Your task to perform on an android device: add a contact Image 0: 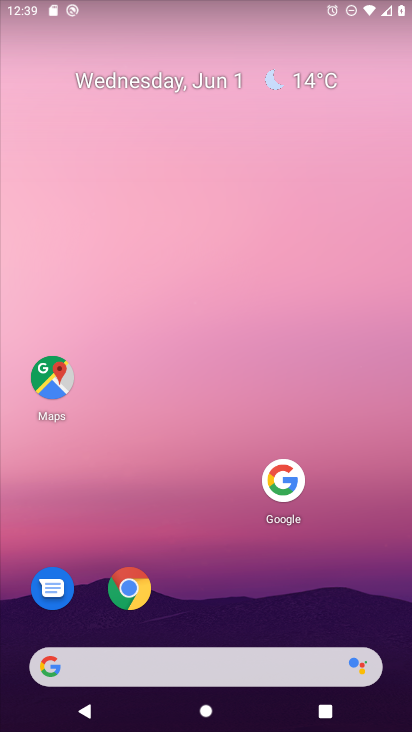
Step 0: press home button
Your task to perform on an android device: add a contact Image 1: 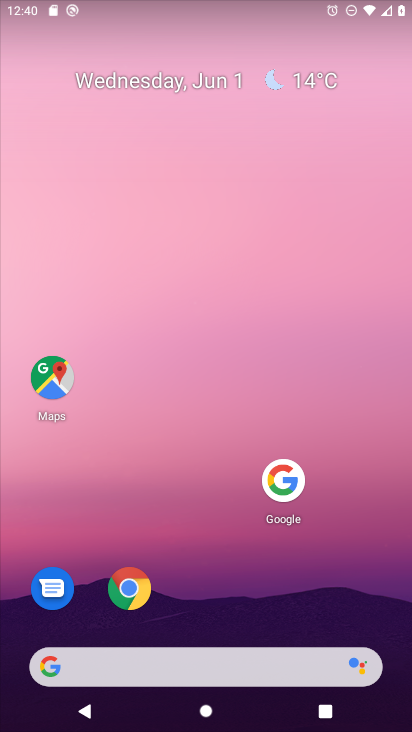
Step 1: drag from (157, 674) to (272, 87)
Your task to perform on an android device: add a contact Image 2: 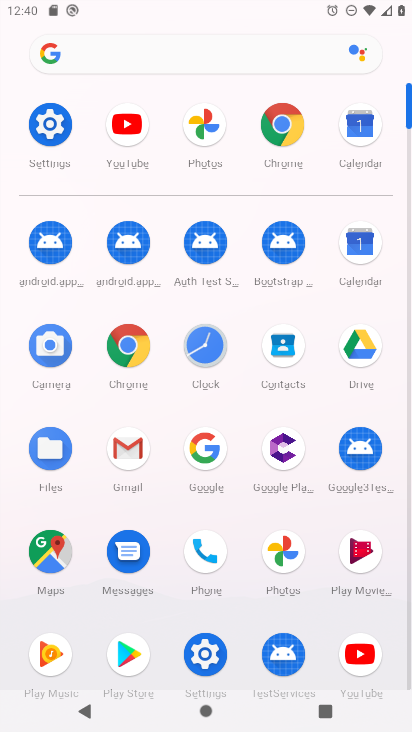
Step 2: click (281, 356)
Your task to perform on an android device: add a contact Image 3: 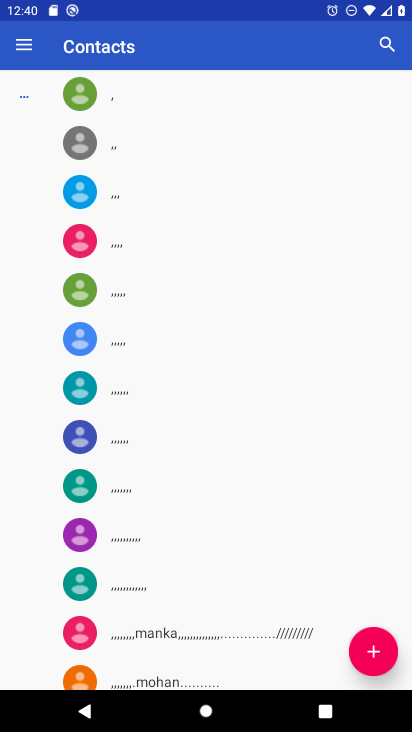
Step 3: click (383, 650)
Your task to perform on an android device: add a contact Image 4: 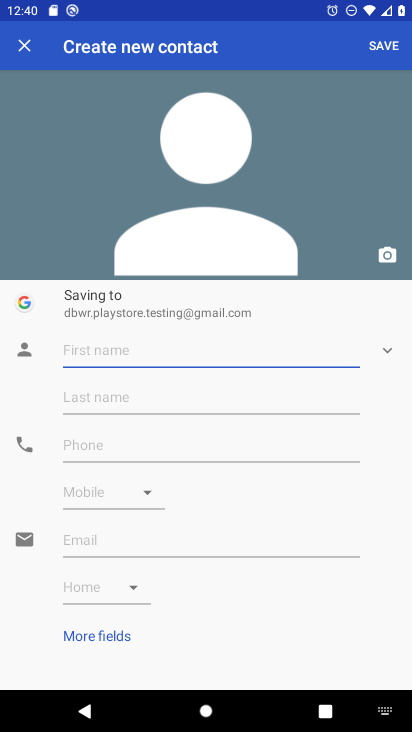
Step 4: click (149, 349)
Your task to perform on an android device: add a contact Image 5: 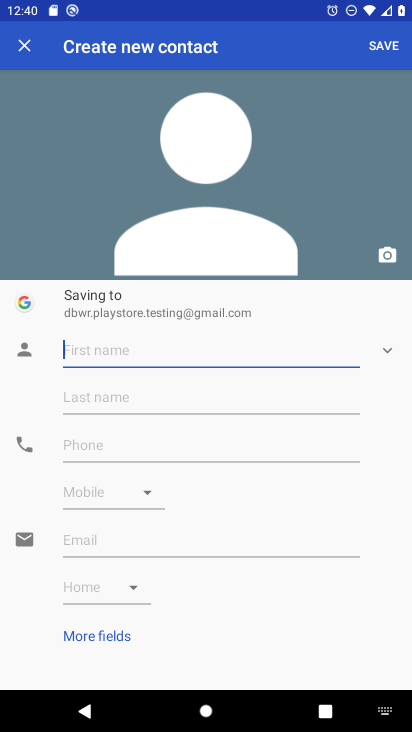
Step 5: type "rtgfhysgdb"
Your task to perform on an android device: add a contact Image 6: 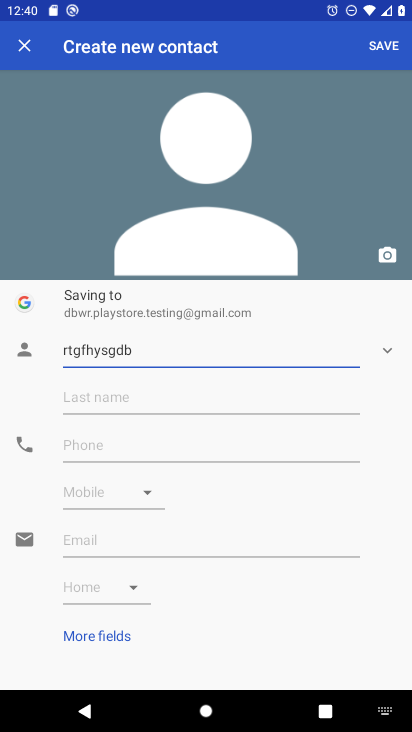
Step 6: click (84, 444)
Your task to perform on an android device: add a contact Image 7: 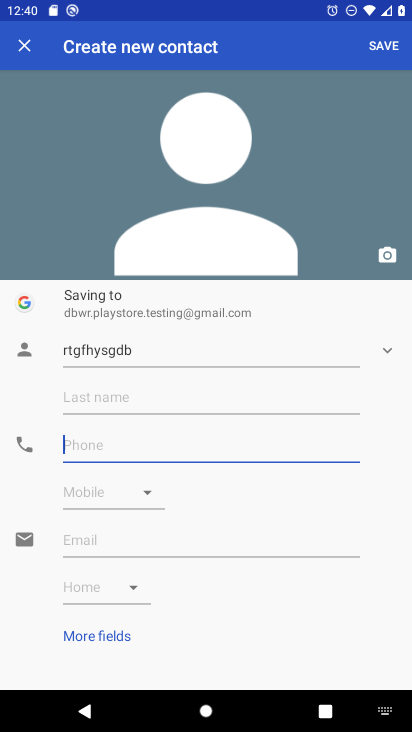
Step 7: type "26455766"
Your task to perform on an android device: add a contact Image 8: 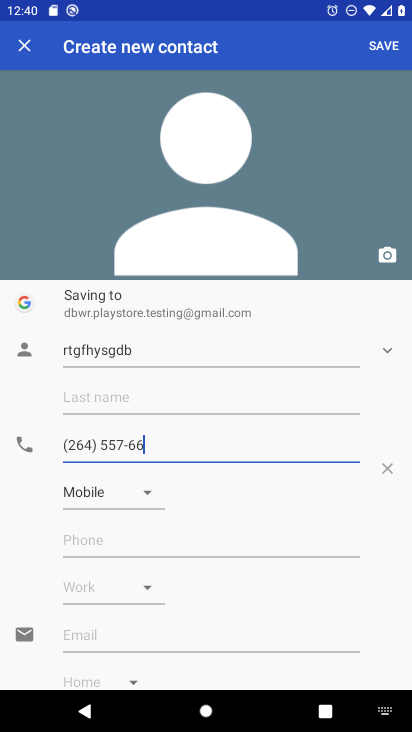
Step 8: click (390, 49)
Your task to perform on an android device: add a contact Image 9: 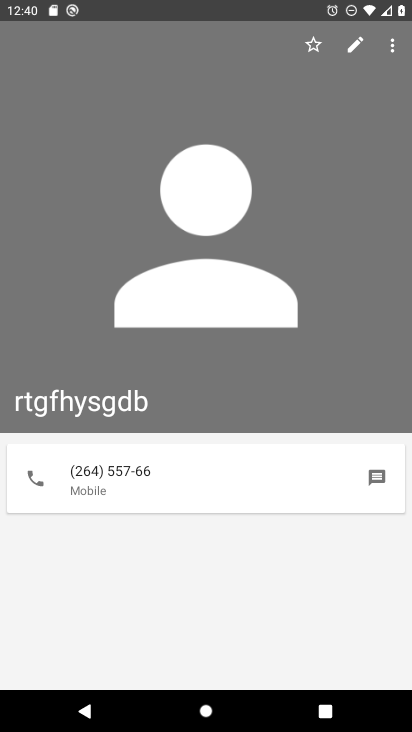
Step 9: task complete